Your task to perform on an android device: Open the stopwatch Image 0: 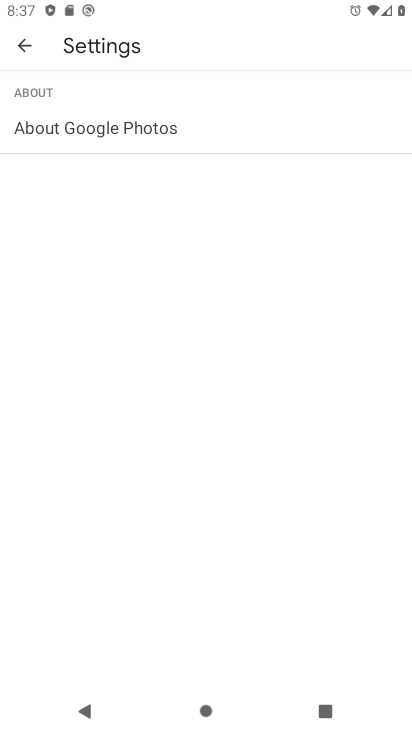
Step 0: press home button
Your task to perform on an android device: Open the stopwatch Image 1: 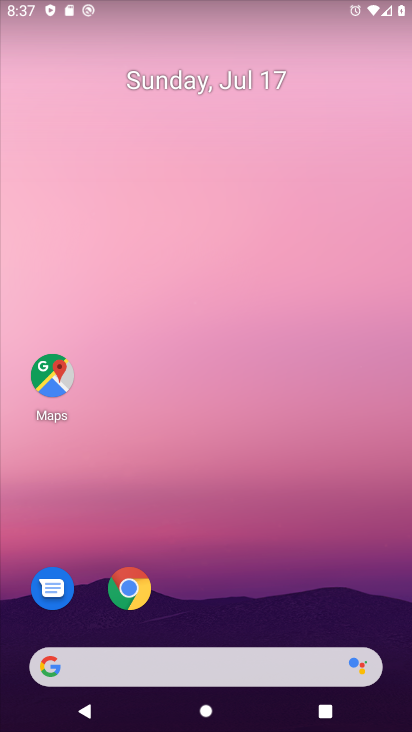
Step 1: drag from (161, 626) to (325, 43)
Your task to perform on an android device: Open the stopwatch Image 2: 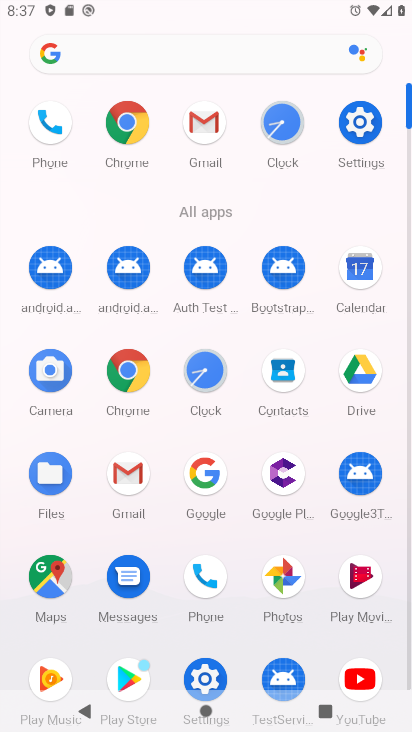
Step 2: click (213, 368)
Your task to perform on an android device: Open the stopwatch Image 3: 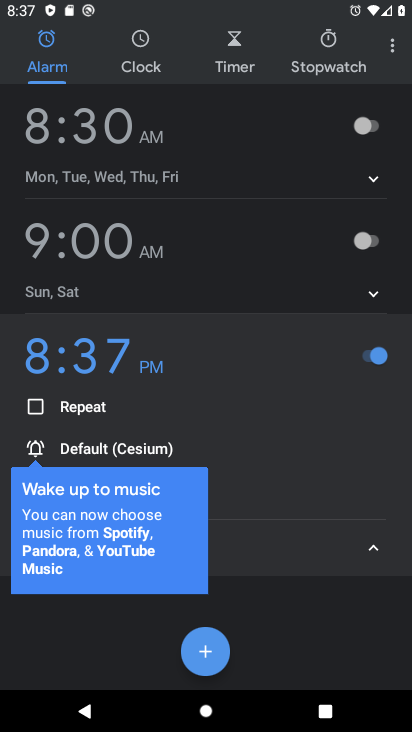
Step 3: click (317, 45)
Your task to perform on an android device: Open the stopwatch Image 4: 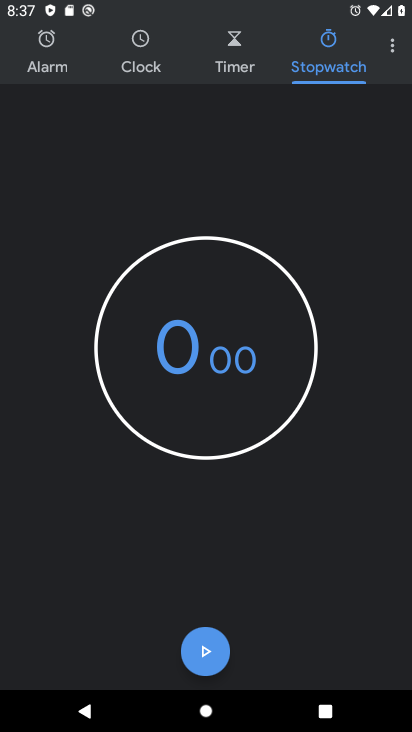
Step 4: task complete